Your task to perform on an android device: Open Google Image 0: 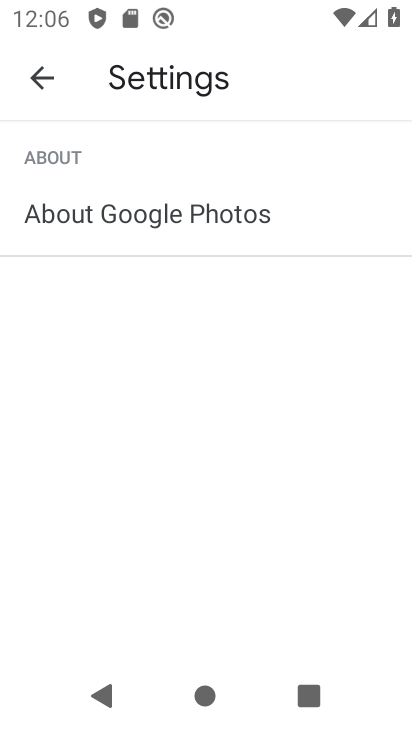
Step 0: press home button
Your task to perform on an android device: Open Google Image 1: 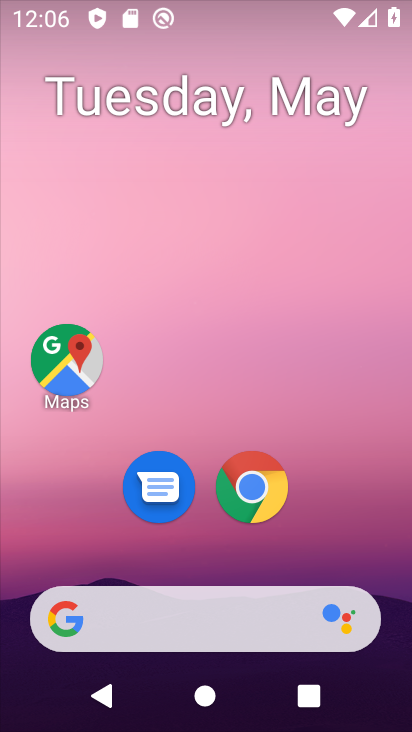
Step 1: drag from (374, 444) to (306, 10)
Your task to perform on an android device: Open Google Image 2: 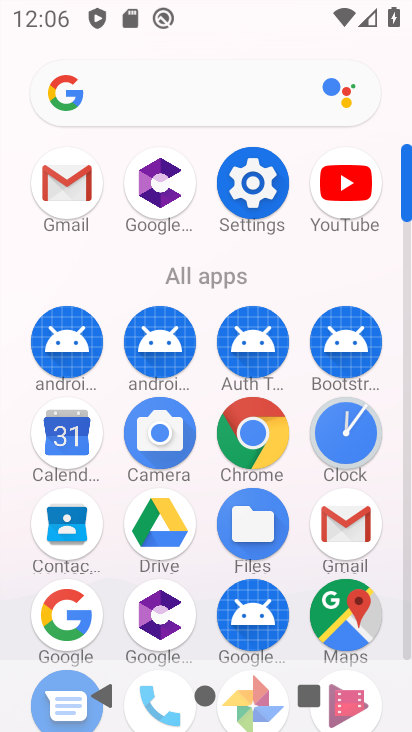
Step 2: click (69, 619)
Your task to perform on an android device: Open Google Image 3: 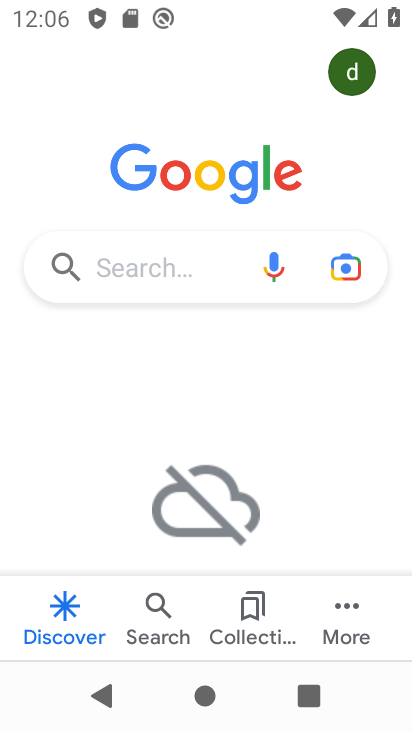
Step 3: task complete